Your task to perform on an android device: make emails show in primary in the gmail app Image 0: 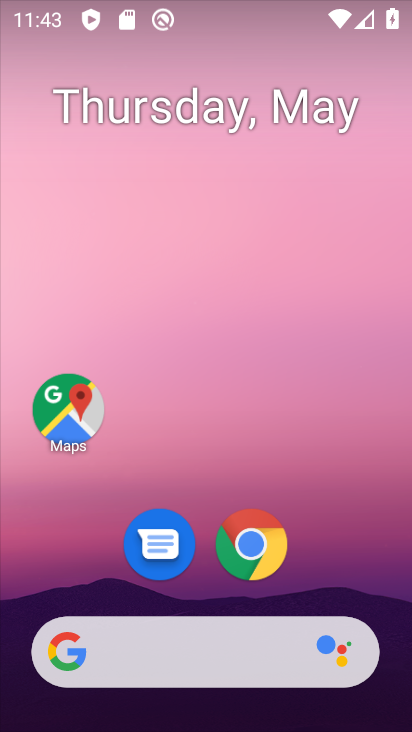
Step 0: drag from (229, 587) to (262, 266)
Your task to perform on an android device: make emails show in primary in the gmail app Image 1: 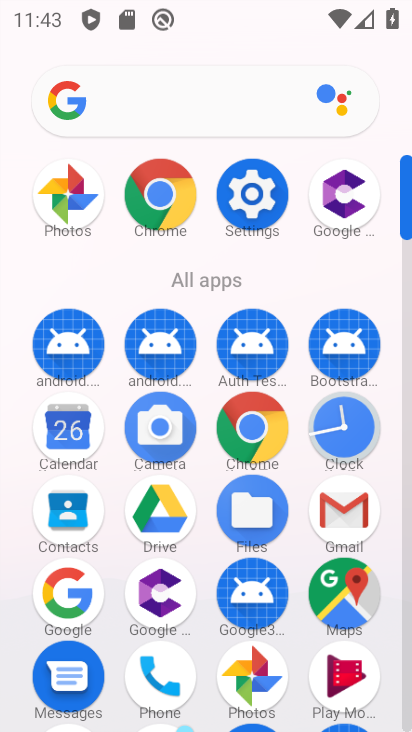
Step 1: click (341, 505)
Your task to perform on an android device: make emails show in primary in the gmail app Image 2: 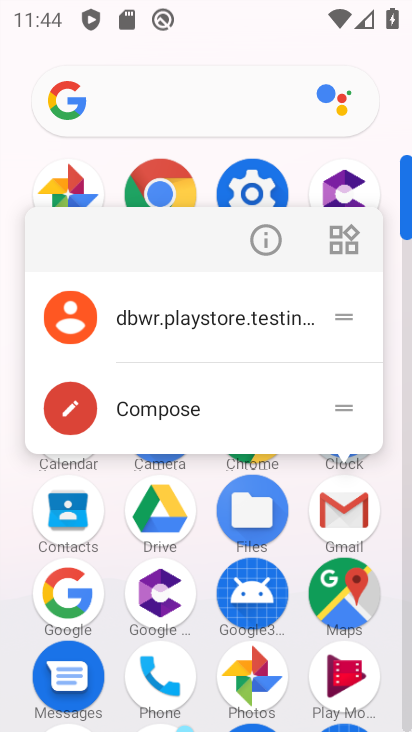
Step 2: click (173, 331)
Your task to perform on an android device: make emails show in primary in the gmail app Image 3: 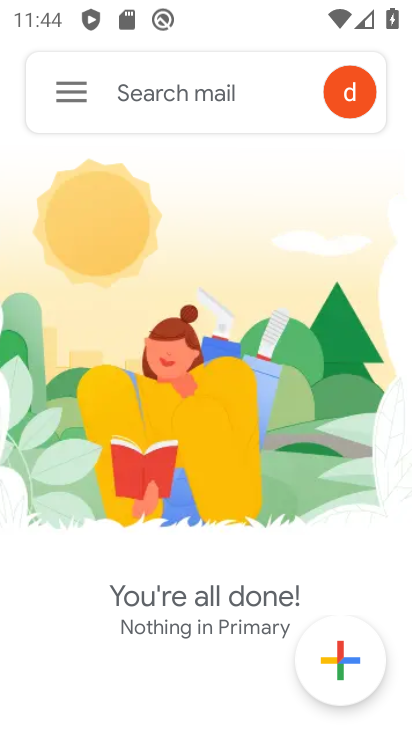
Step 3: click (73, 93)
Your task to perform on an android device: make emails show in primary in the gmail app Image 4: 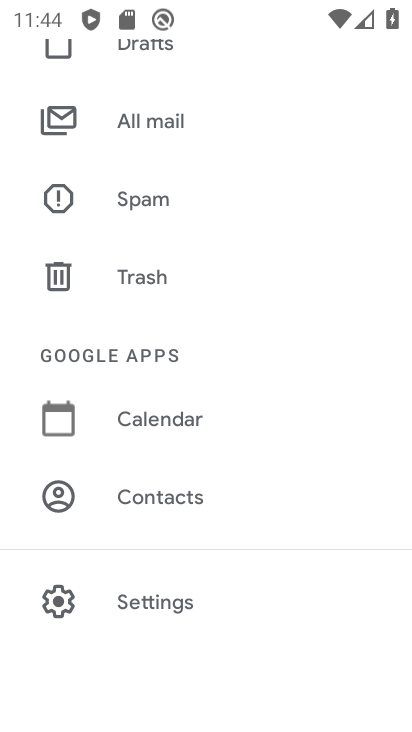
Step 4: click (158, 606)
Your task to perform on an android device: make emails show in primary in the gmail app Image 5: 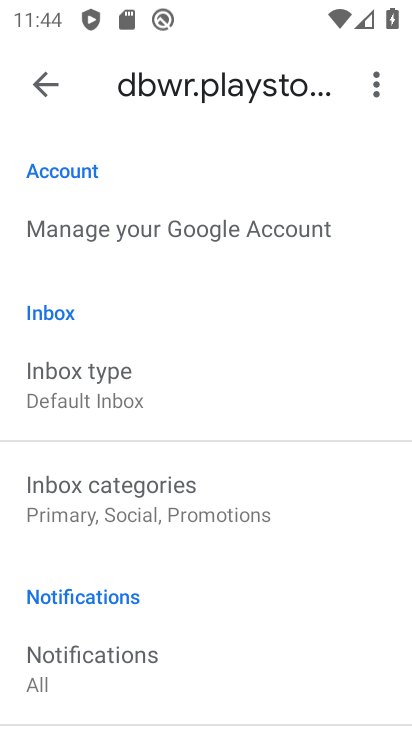
Step 5: drag from (195, 613) to (286, 89)
Your task to perform on an android device: make emails show in primary in the gmail app Image 6: 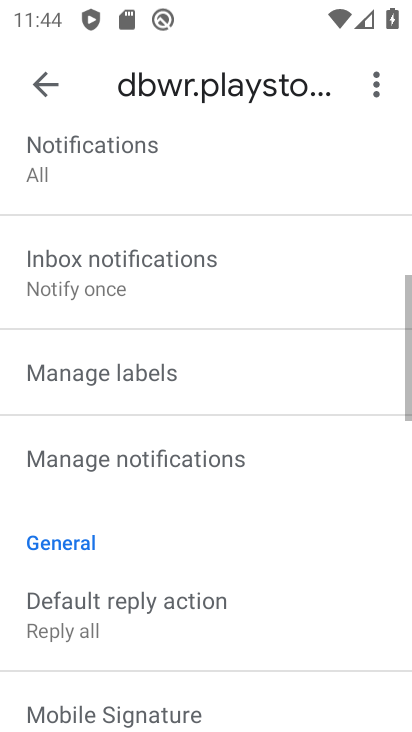
Step 6: click (45, 77)
Your task to perform on an android device: make emails show in primary in the gmail app Image 7: 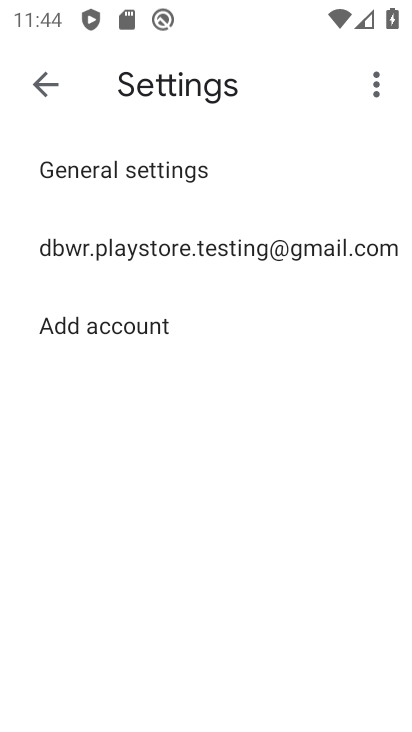
Step 7: click (45, 77)
Your task to perform on an android device: make emails show in primary in the gmail app Image 8: 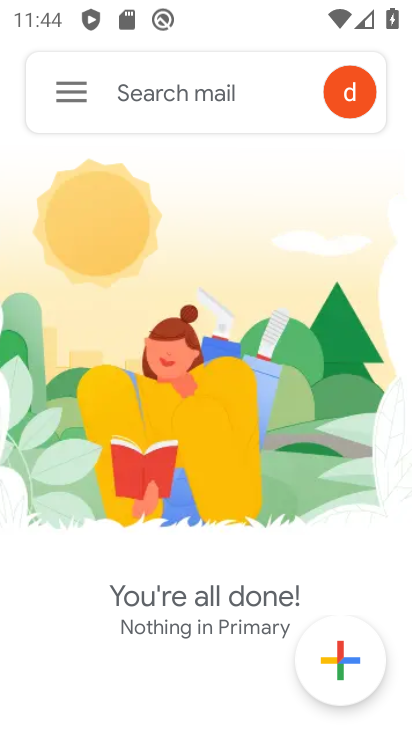
Step 8: click (62, 109)
Your task to perform on an android device: make emails show in primary in the gmail app Image 9: 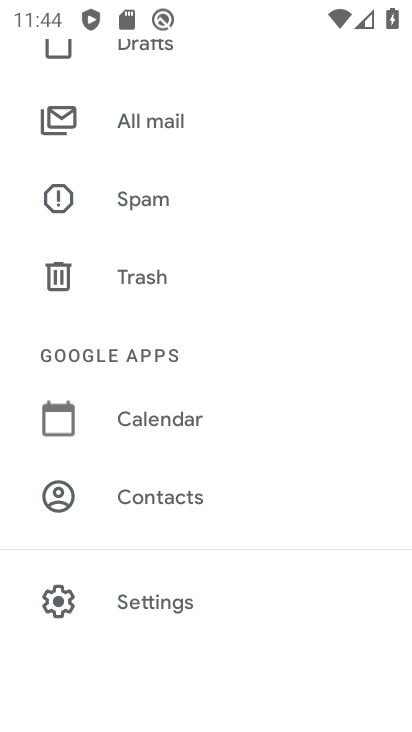
Step 9: drag from (142, 225) to (268, 694)
Your task to perform on an android device: make emails show in primary in the gmail app Image 10: 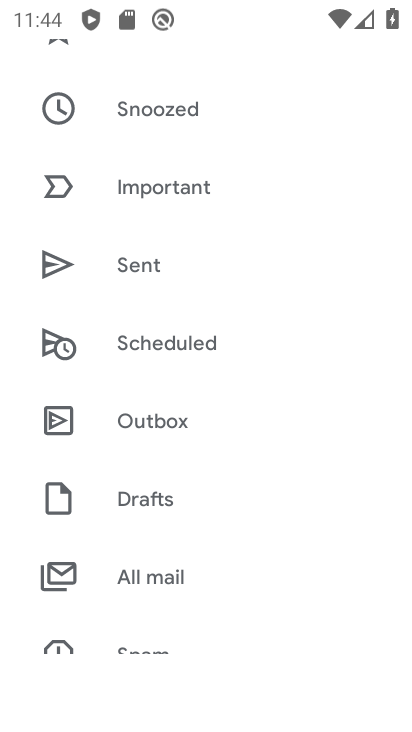
Step 10: drag from (155, 207) to (352, 668)
Your task to perform on an android device: make emails show in primary in the gmail app Image 11: 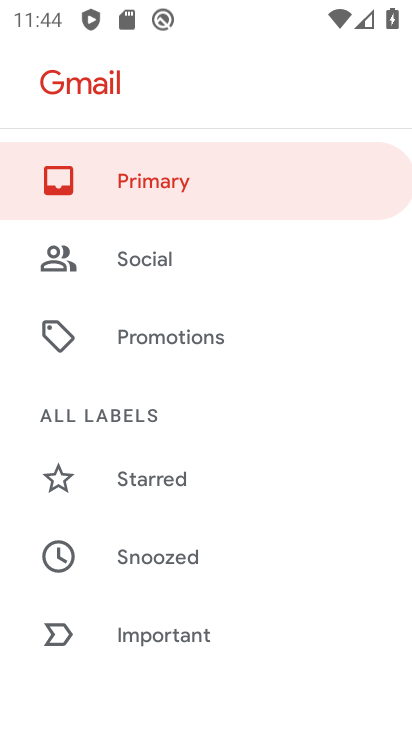
Step 11: click (178, 184)
Your task to perform on an android device: make emails show in primary in the gmail app Image 12: 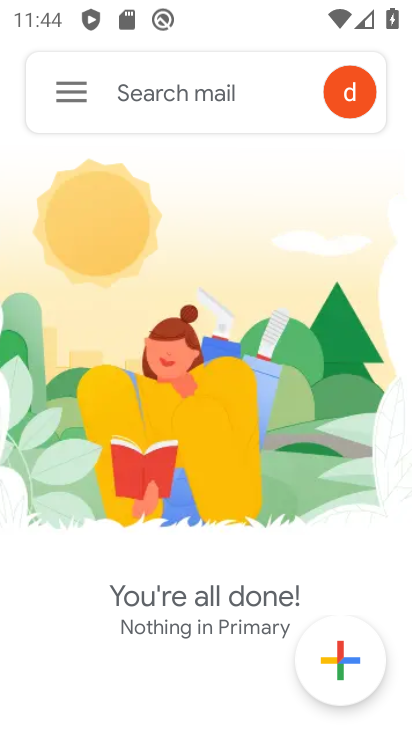
Step 12: task complete